Your task to perform on an android device: check battery use Image 0: 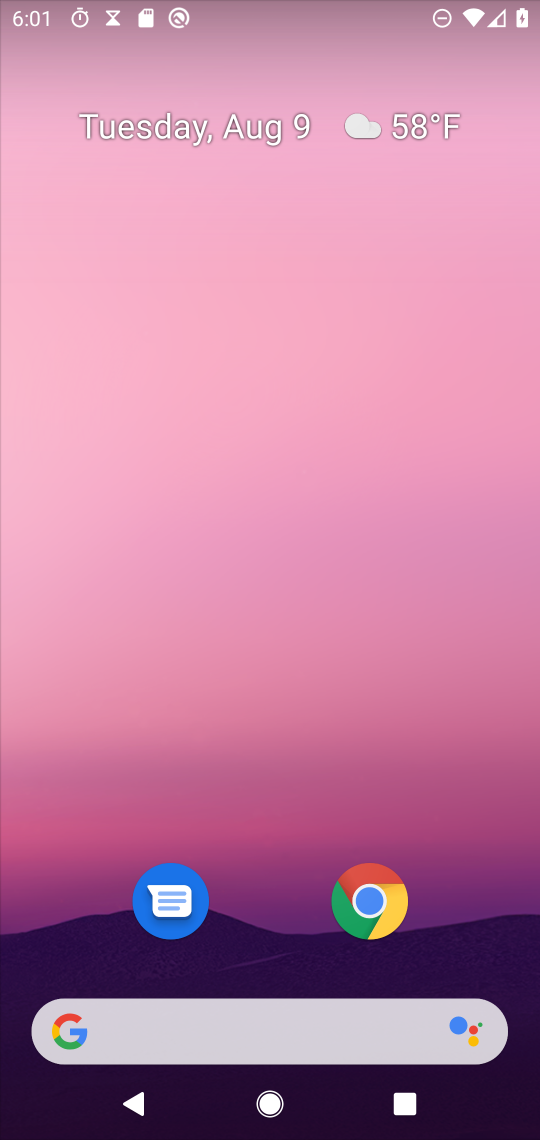
Step 0: drag from (231, 922) to (378, 134)
Your task to perform on an android device: check battery use Image 1: 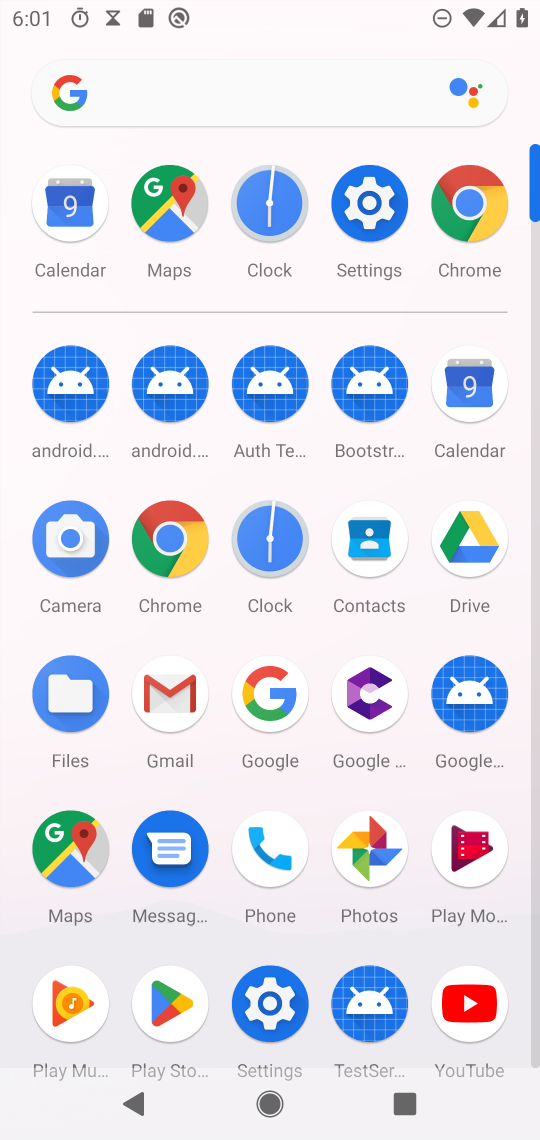
Step 1: click (368, 209)
Your task to perform on an android device: check battery use Image 2: 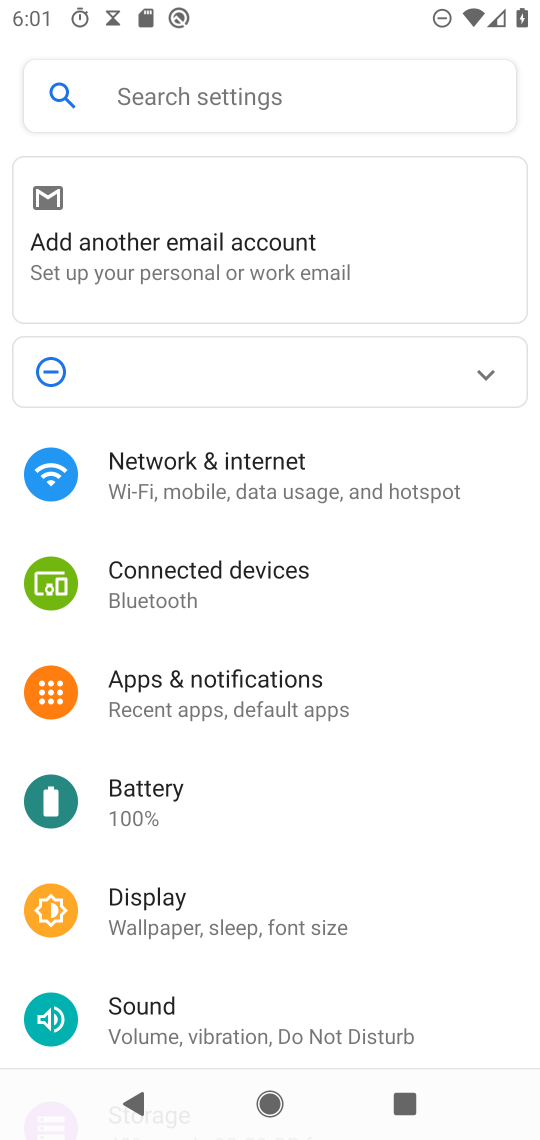
Step 2: click (152, 806)
Your task to perform on an android device: check battery use Image 3: 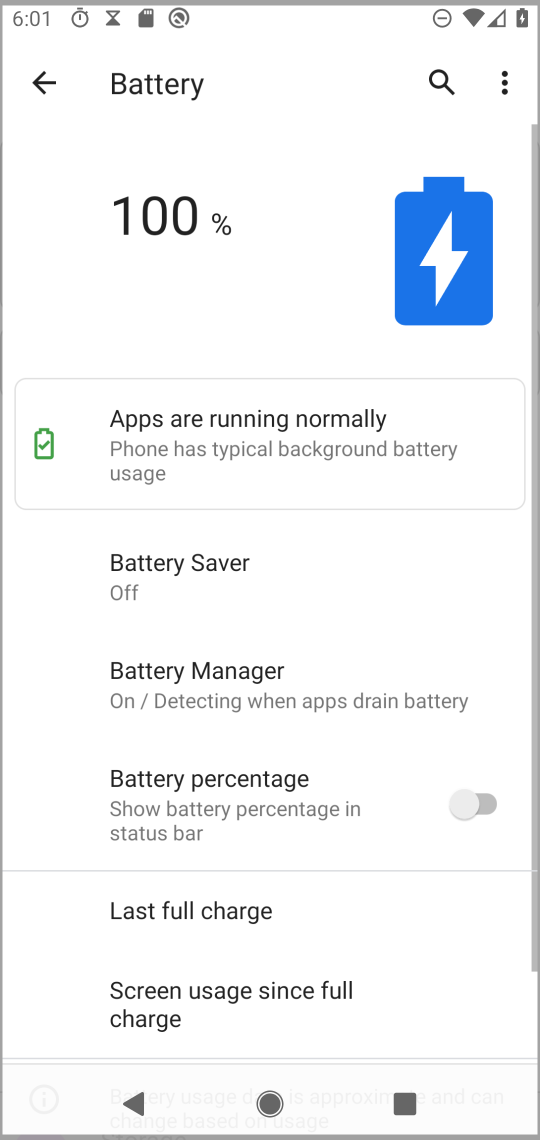
Step 3: task complete